Your task to perform on an android device: empty trash in the gmail app Image 0: 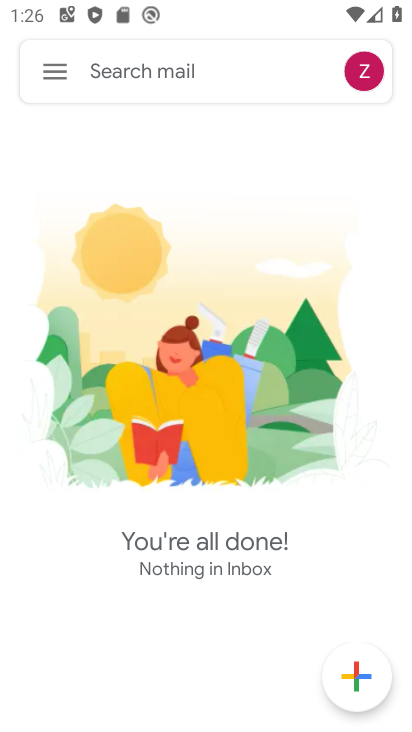
Step 0: press home button
Your task to perform on an android device: empty trash in the gmail app Image 1: 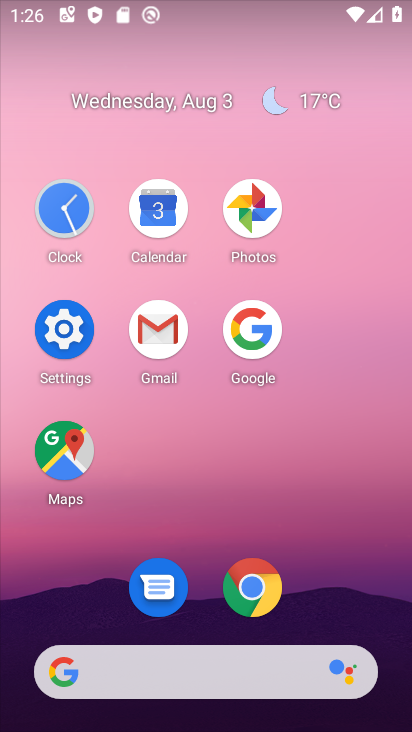
Step 1: click (140, 322)
Your task to perform on an android device: empty trash in the gmail app Image 2: 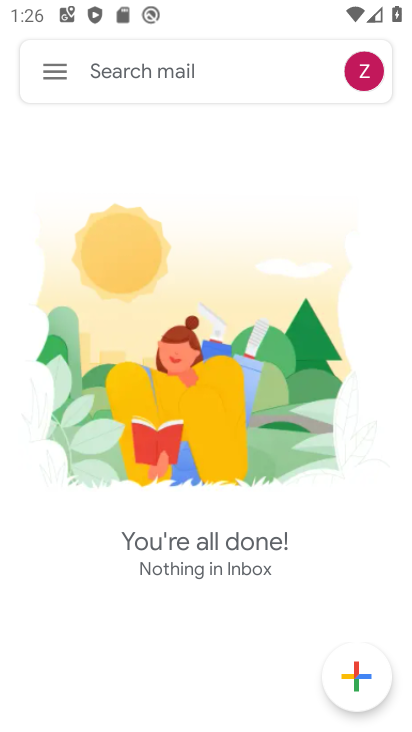
Step 2: click (70, 77)
Your task to perform on an android device: empty trash in the gmail app Image 3: 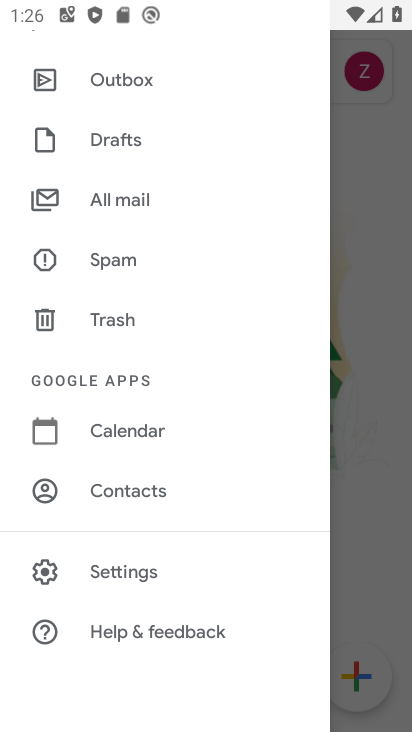
Step 3: click (169, 555)
Your task to perform on an android device: empty trash in the gmail app Image 4: 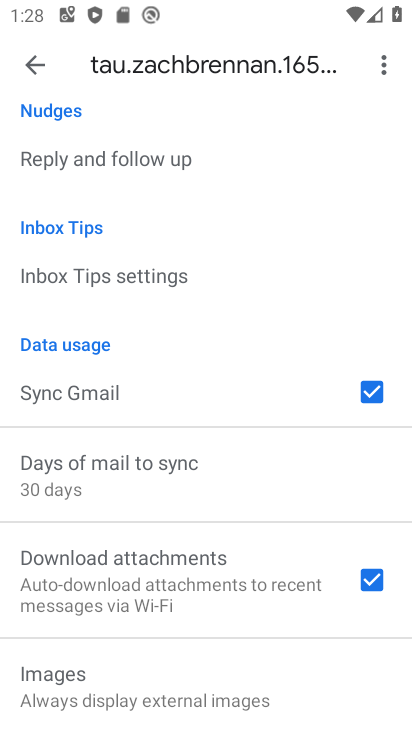
Step 4: press home button
Your task to perform on an android device: empty trash in the gmail app Image 5: 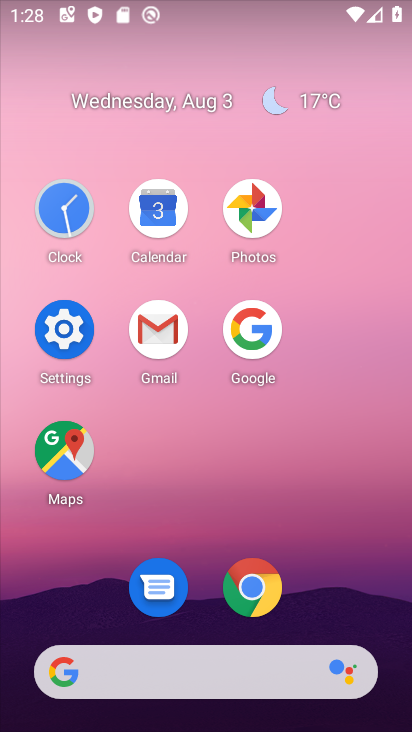
Step 5: click (154, 328)
Your task to perform on an android device: empty trash in the gmail app Image 6: 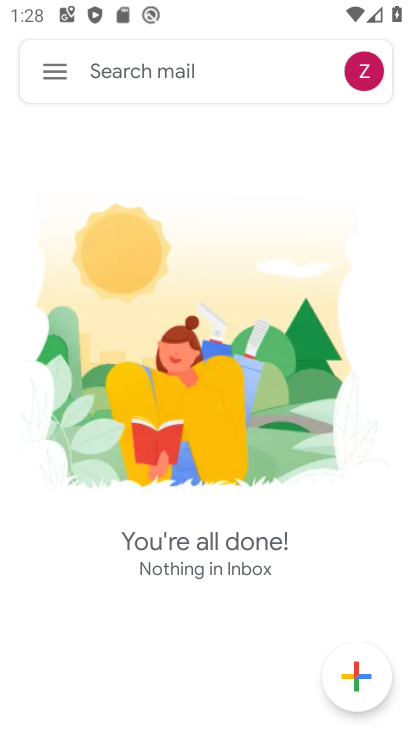
Step 6: click (53, 72)
Your task to perform on an android device: empty trash in the gmail app Image 7: 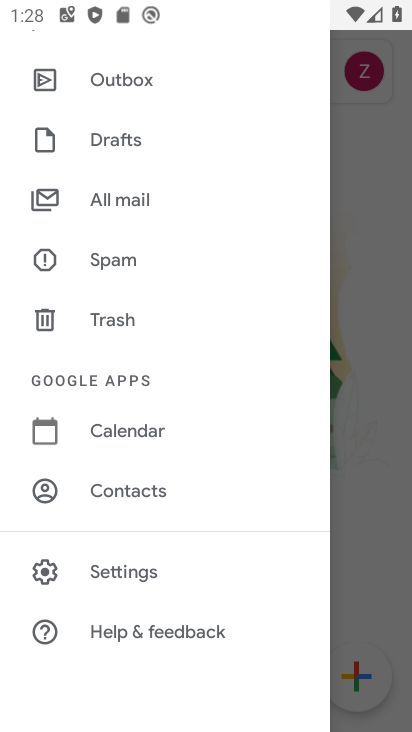
Step 7: click (155, 326)
Your task to perform on an android device: empty trash in the gmail app Image 8: 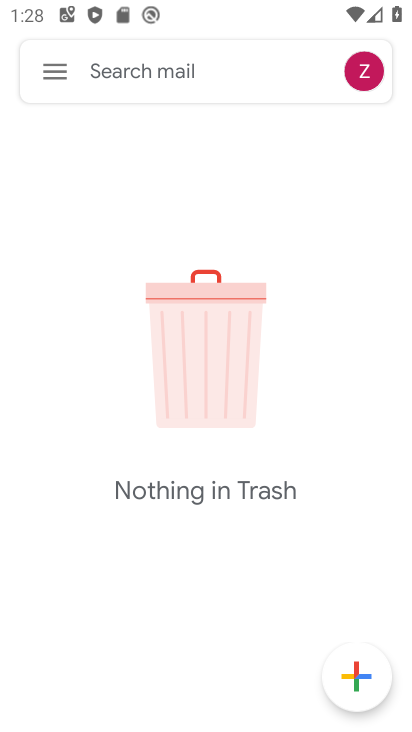
Step 8: task complete